Your task to perform on an android device: turn on showing notifications on the lock screen Image 0: 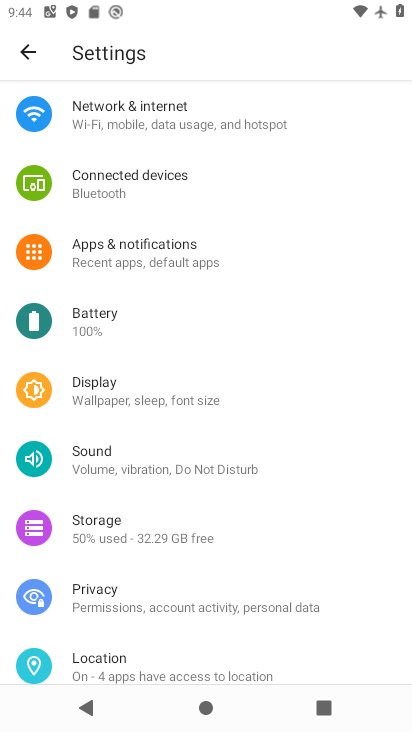
Step 0: press home button
Your task to perform on an android device: turn on showing notifications on the lock screen Image 1: 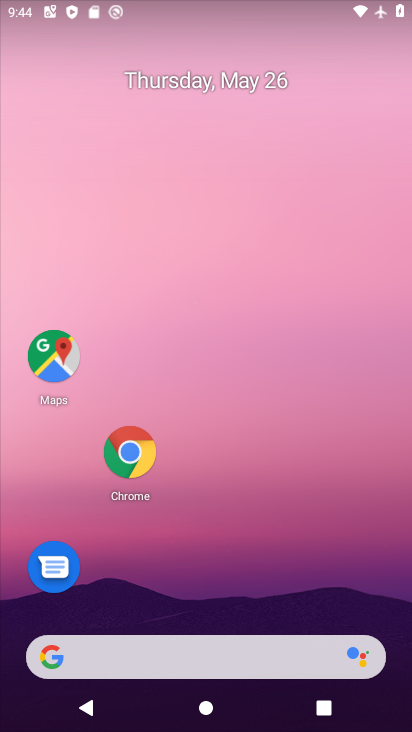
Step 1: drag from (223, 651) to (299, 30)
Your task to perform on an android device: turn on showing notifications on the lock screen Image 2: 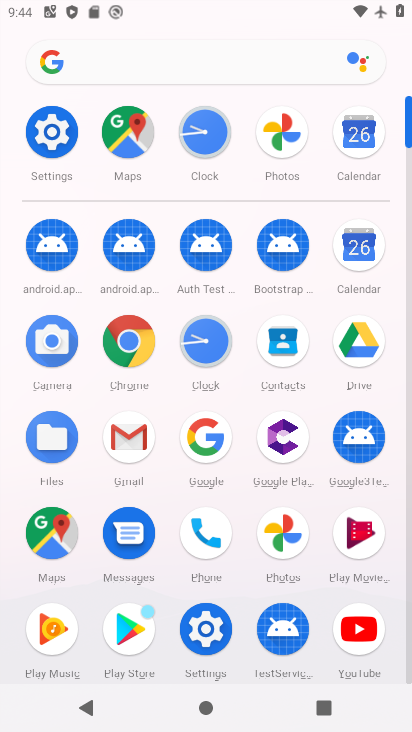
Step 2: click (54, 141)
Your task to perform on an android device: turn on showing notifications on the lock screen Image 3: 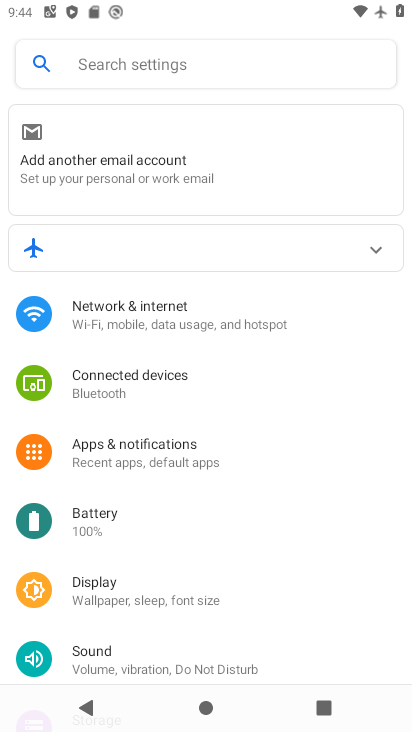
Step 3: click (161, 449)
Your task to perform on an android device: turn on showing notifications on the lock screen Image 4: 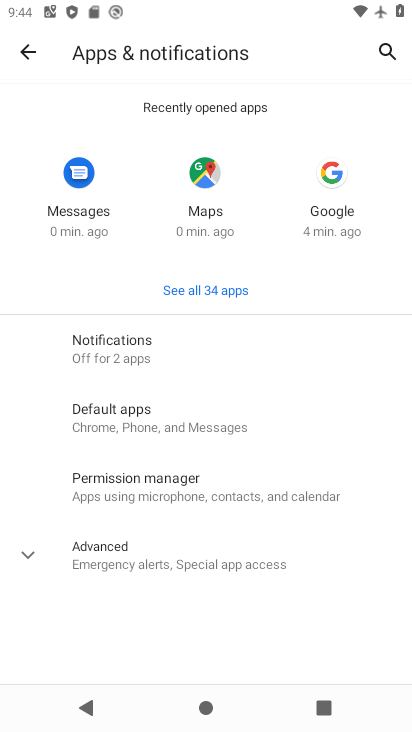
Step 4: click (105, 351)
Your task to perform on an android device: turn on showing notifications on the lock screen Image 5: 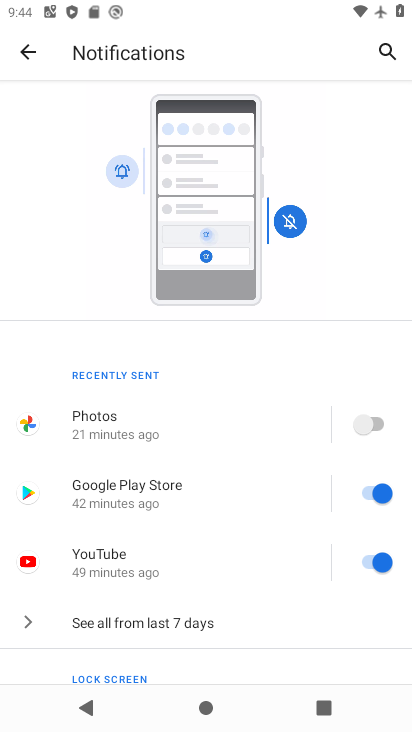
Step 5: drag from (240, 591) to (291, 239)
Your task to perform on an android device: turn on showing notifications on the lock screen Image 6: 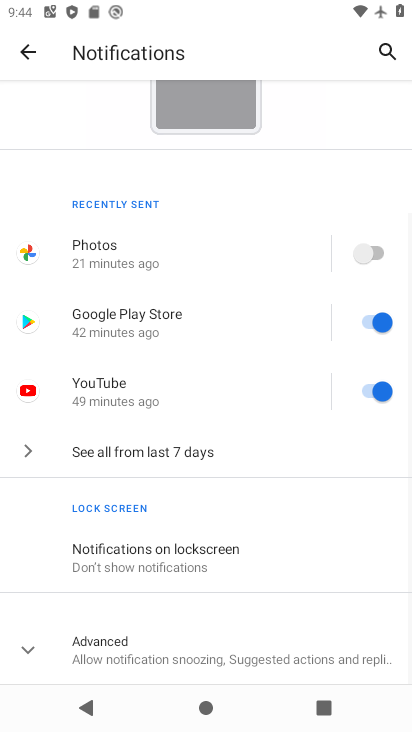
Step 6: click (163, 553)
Your task to perform on an android device: turn on showing notifications on the lock screen Image 7: 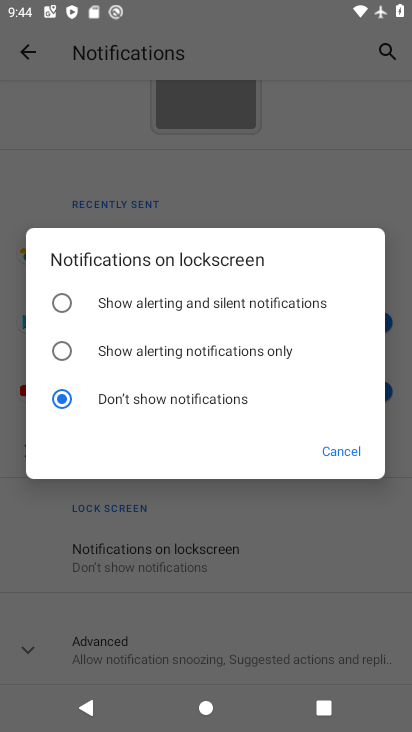
Step 7: click (62, 302)
Your task to perform on an android device: turn on showing notifications on the lock screen Image 8: 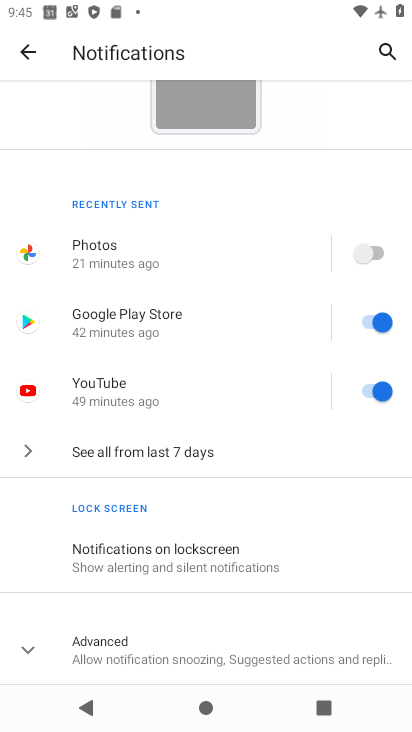
Step 8: task complete